Your task to perform on an android device: Go to Google maps Image 0: 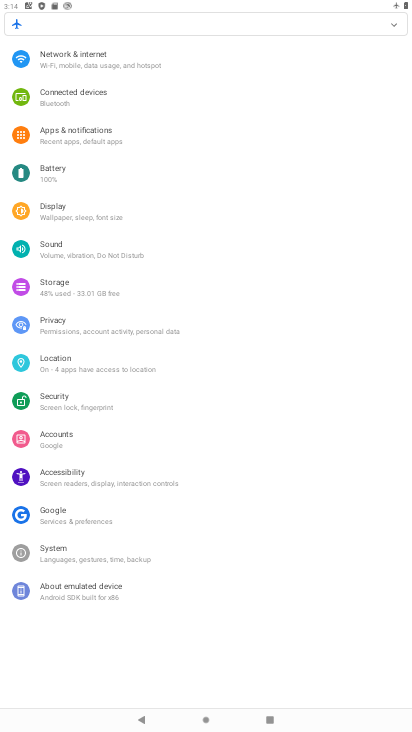
Step 0: press home button
Your task to perform on an android device: Go to Google maps Image 1: 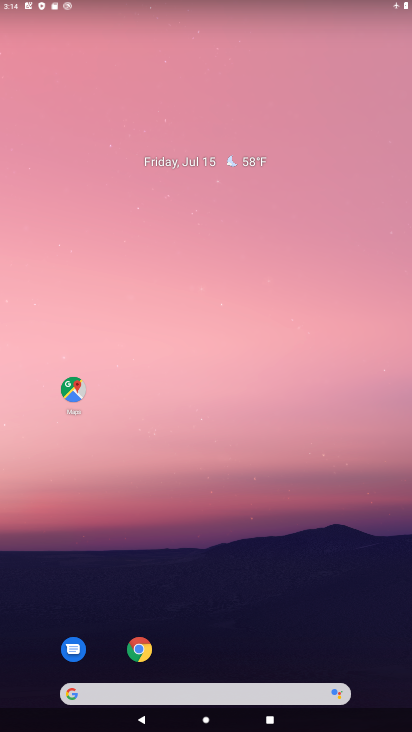
Step 1: drag from (204, 601) to (200, 255)
Your task to perform on an android device: Go to Google maps Image 2: 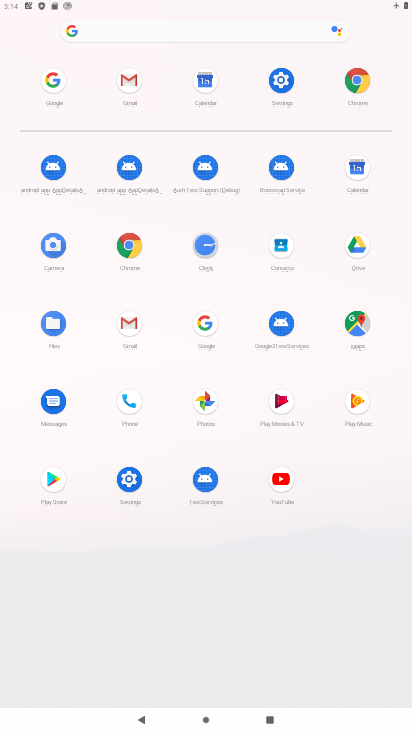
Step 2: click (358, 323)
Your task to perform on an android device: Go to Google maps Image 3: 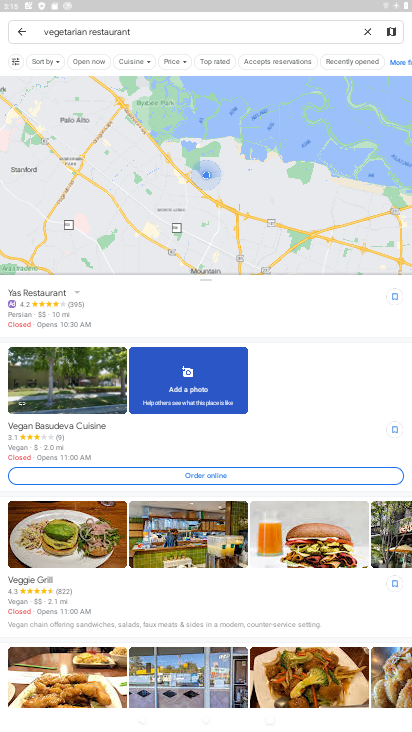
Step 3: task complete